Your task to perform on an android device: turn on wifi Image 0: 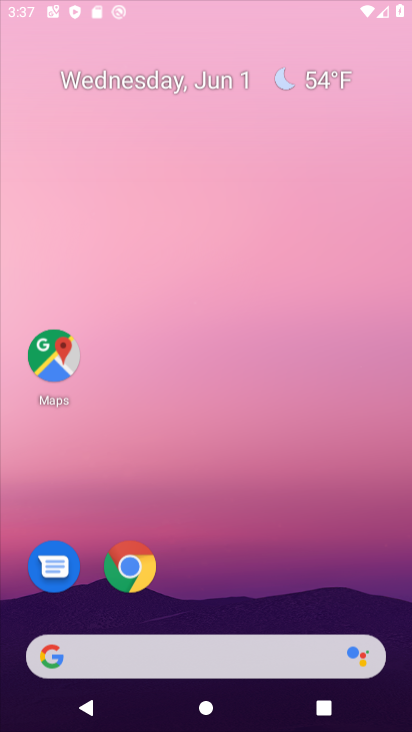
Step 0: drag from (292, 476) to (294, 215)
Your task to perform on an android device: turn on wifi Image 1: 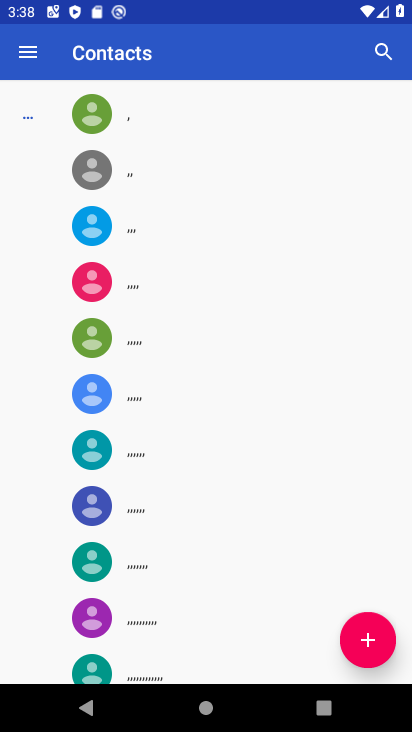
Step 1: press home button
Your task to perform on an android device: turn on wifi Image 2: 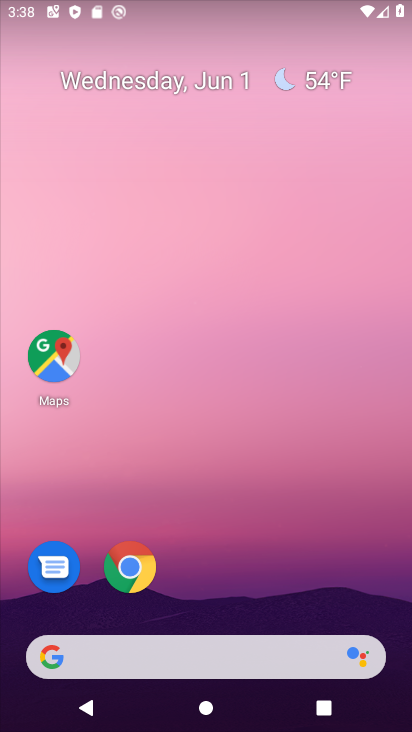
Step 2: drag from (160, 648) to (166, 299)
Your task to perform on an android device: turn on wifi Image 3: 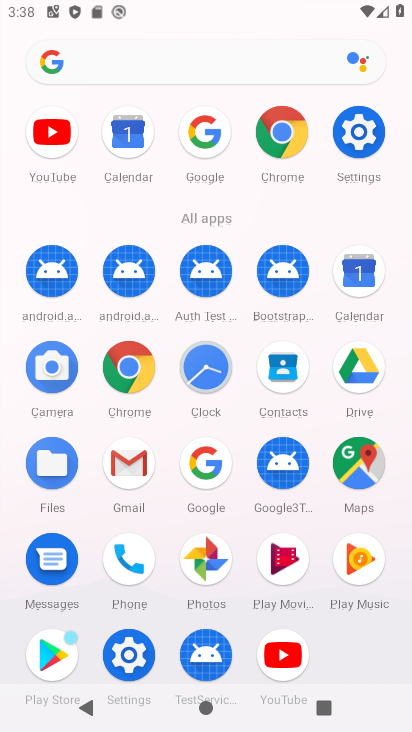
Step 3: click (131, 473)
Your task to perform on an android device: turn on wifi Image 4: 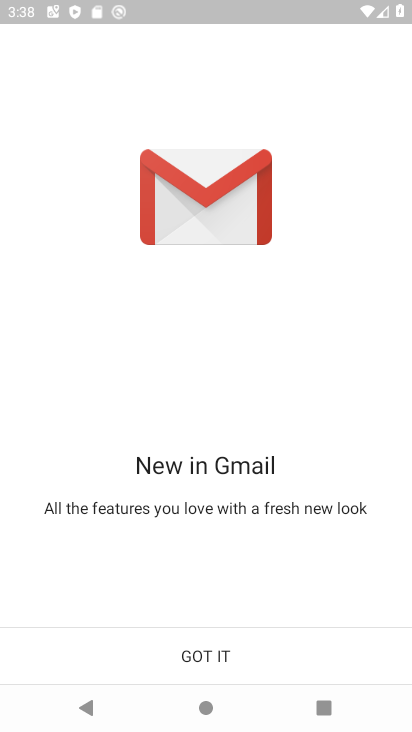
Step 4: click (197, 657)
Your task to perform on an android device: turn on wifi Image 5: 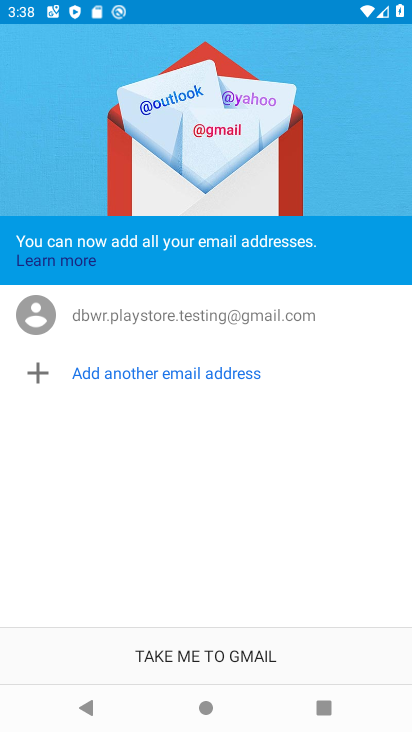
Step 5: click (212, 663)
Your task to perform on an android device: turn on wifi Image 6: 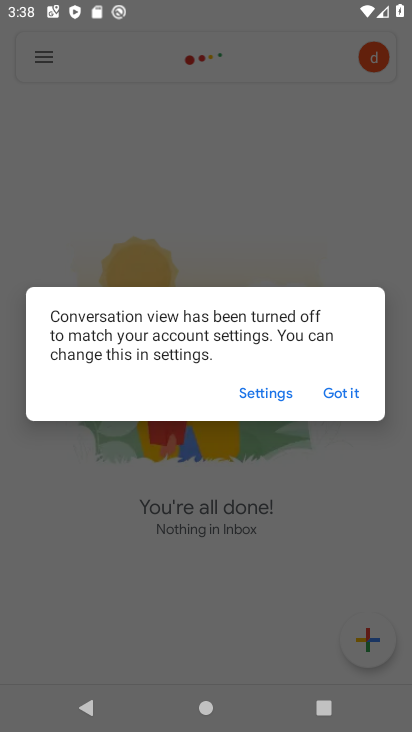
Step 6: click (333, 397)
Your task to perform on an android device: turn on wifi Image 7: 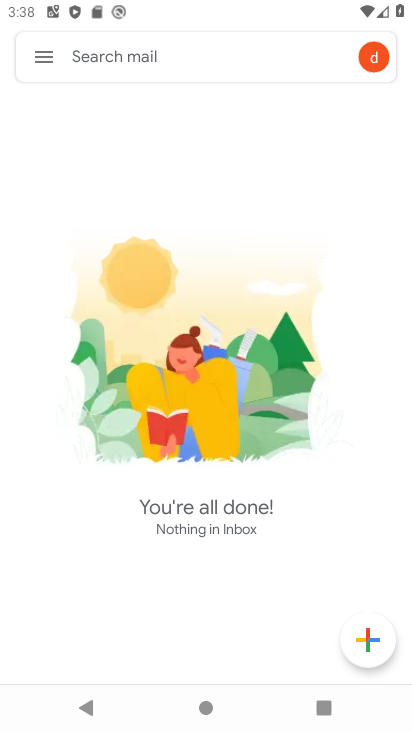
Step 7: click (39, 58)
Your task to perform on an android device: turn on wifi Image 8: 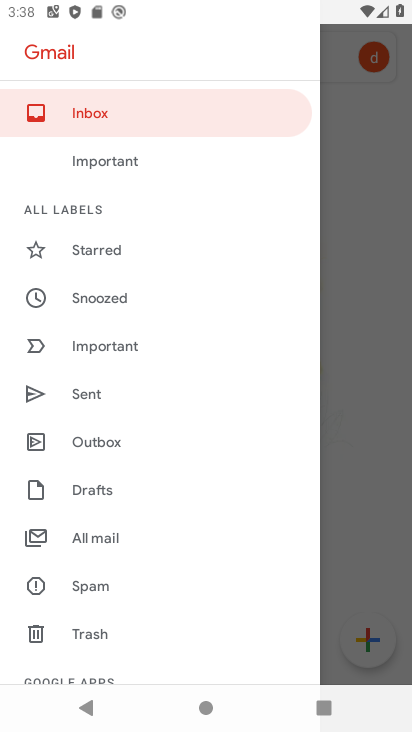
Step 8: drag from (88, 650) to (88, 347)
Your task to perform on an android device: turn on wifi Image 9: 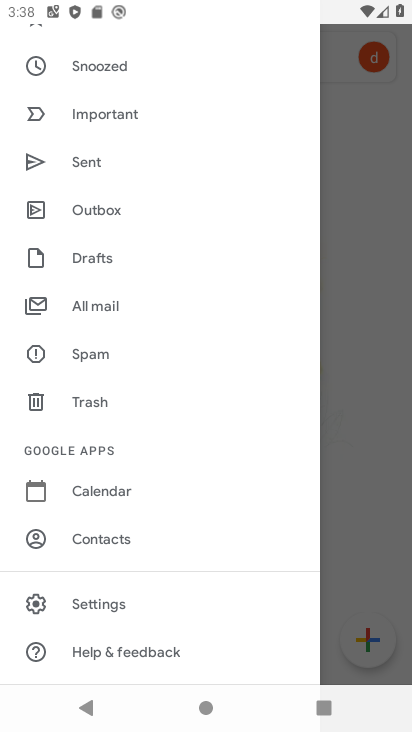
Step 9: click (132, 608)
Your task to perform on an android device: turn on wifi Image 10: 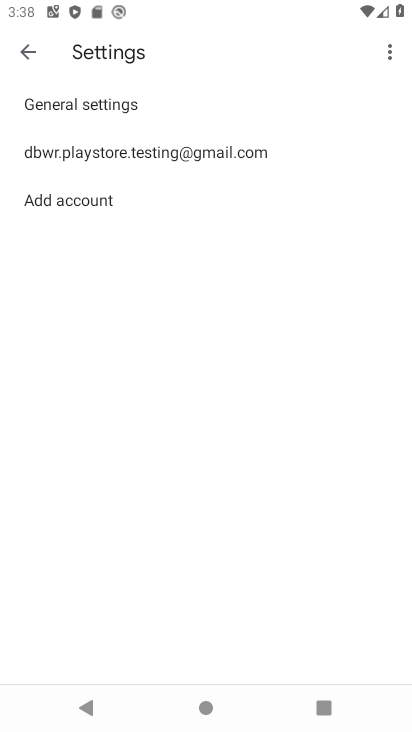
Step 10: click (67, 157)
Your task to perform on an android device: turn on wifi Image 11: 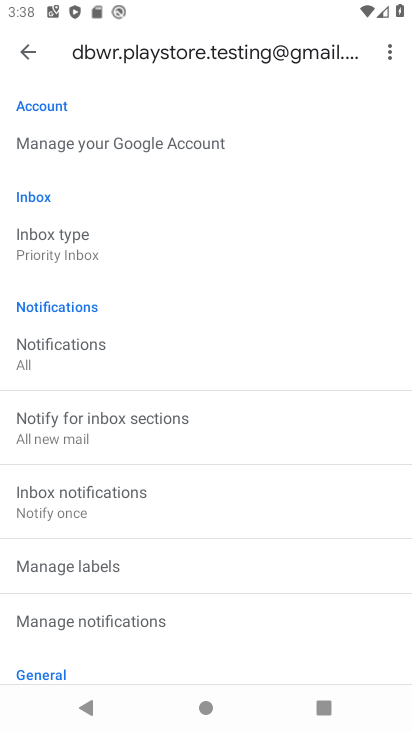
Step 11: click (89, 257)
Your task to perform on an android device: turn on wifi Image 12: 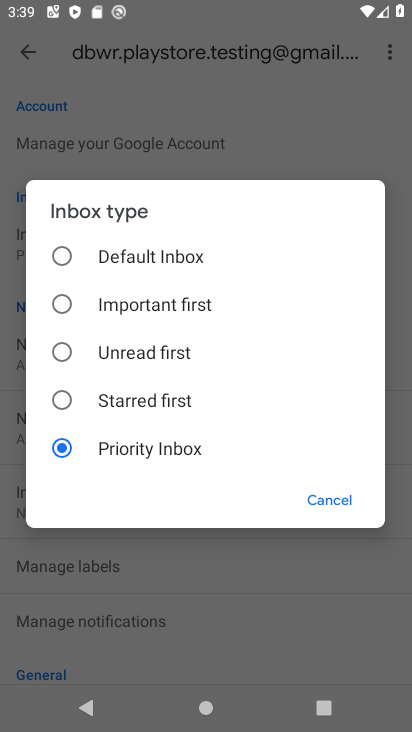
Step 12: click (320, 491)
Your task to perform on an android device: turn on wifi Image 13: 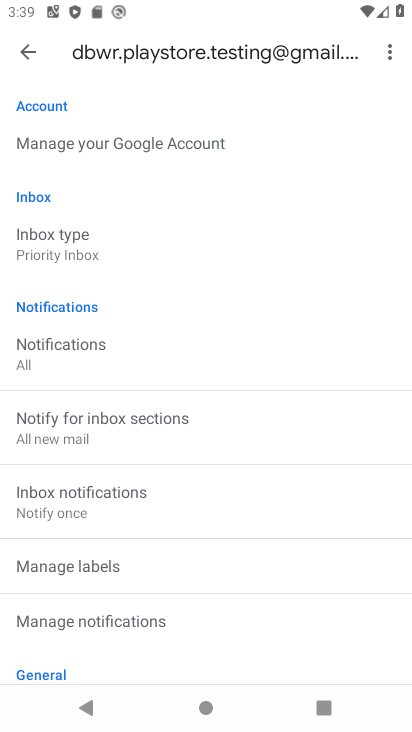
Step 13: task complete